Your task to perform on an android device: change alarm snooze length Image 0: 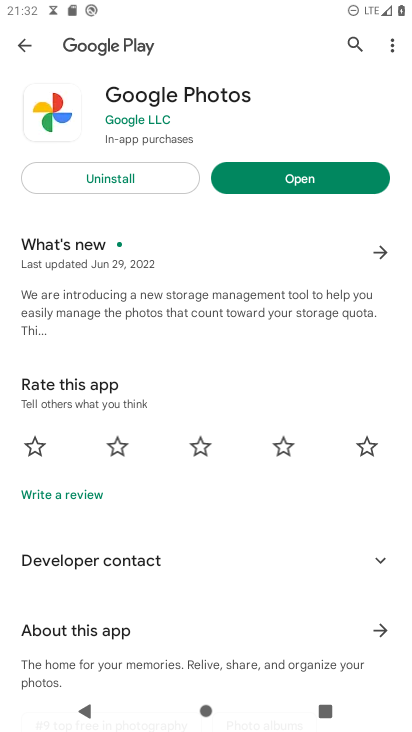
Step 0: press home button
Your task to perform on an android device: change alarm snooze length Image 1: 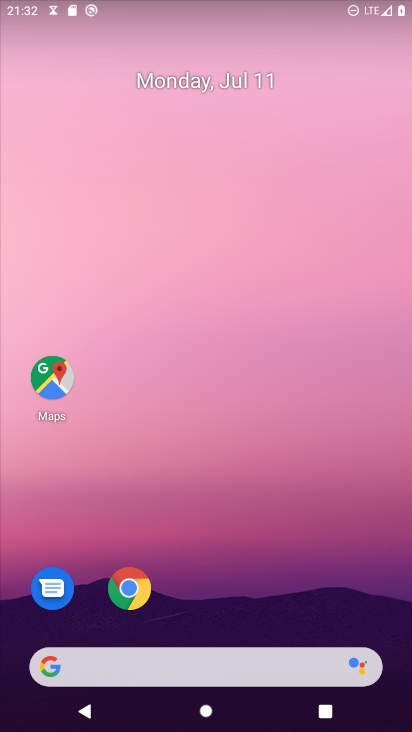
Step 1: click (408, 438)
Your task to perform on an android device: change alarm snooze length Image 2: 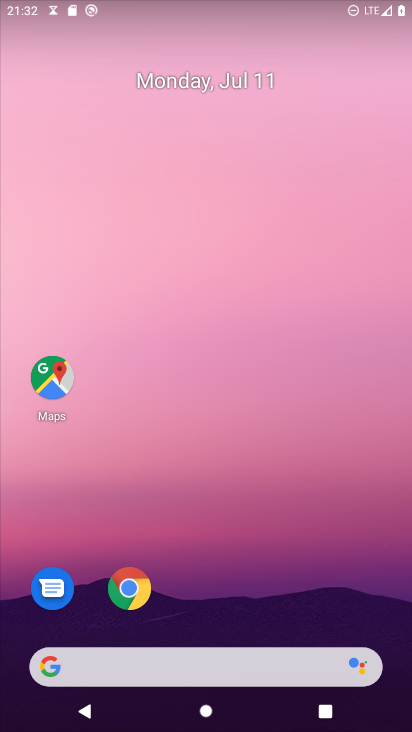
Step 2: drag from (227, 603) to (202, 214)
Your task to perform on an android device: change alarm snooze length Image 3: 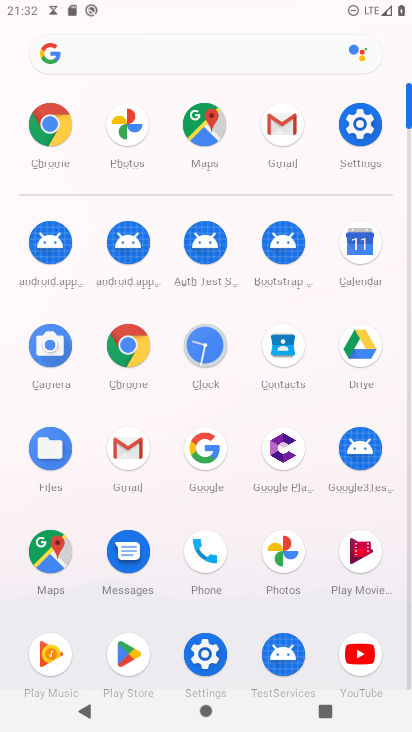
Step 3: click (208, 348)
Your task to perform on an android device: change alarm snooze length Image 4: 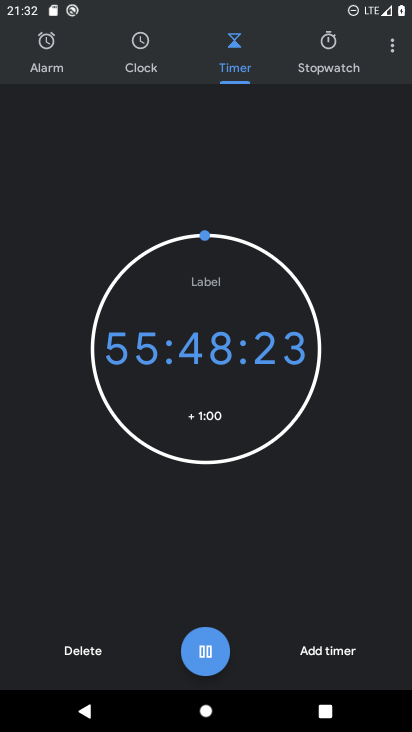
Step 4: click (402, 38)
Your task to perform on an android device: change alarm snooze length Image 5: 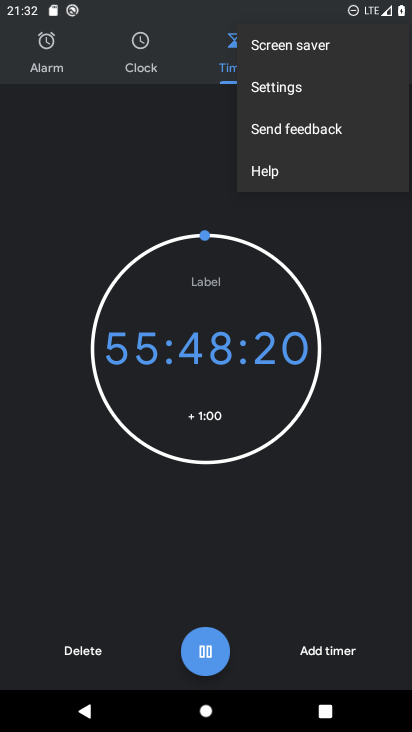
Step 5: click (264, 89)
Your task to perform on an android device: change alarm snooze length Image 6: 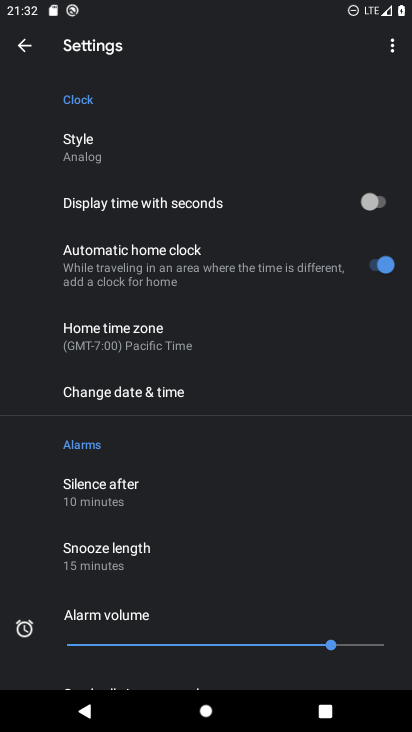
Step 6: click (100, 555)
Your task to perform on an android device: change alarm snooze length Image 7: 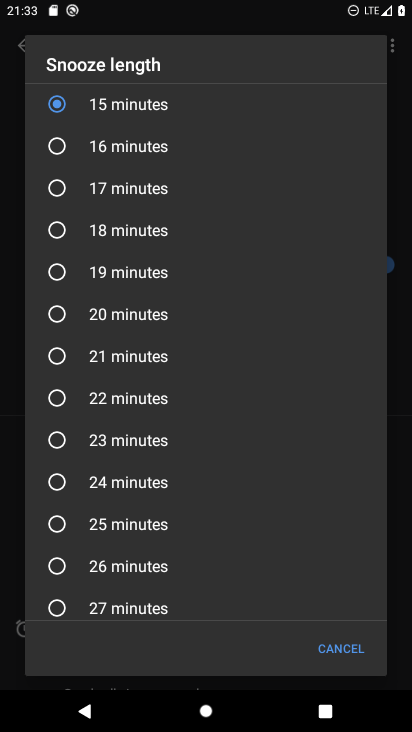
Step 7: click (57, 150)
Your task to perform on an android device: change alarm snooze length Image 8: 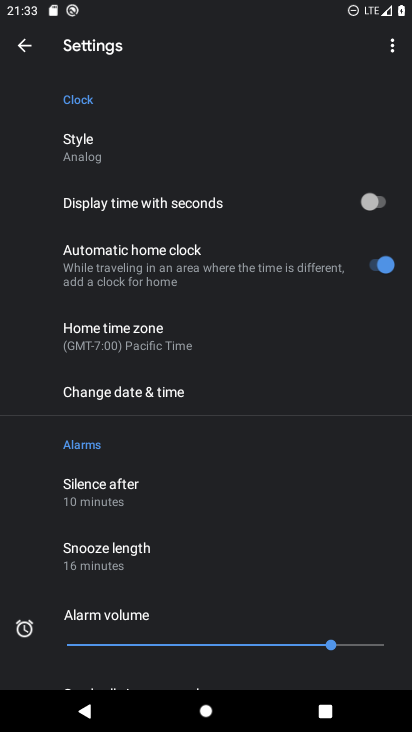
Step 8: task complete